Your task to perform on an android device: What's the price of the Galaxy phone on eBay? Image 0: 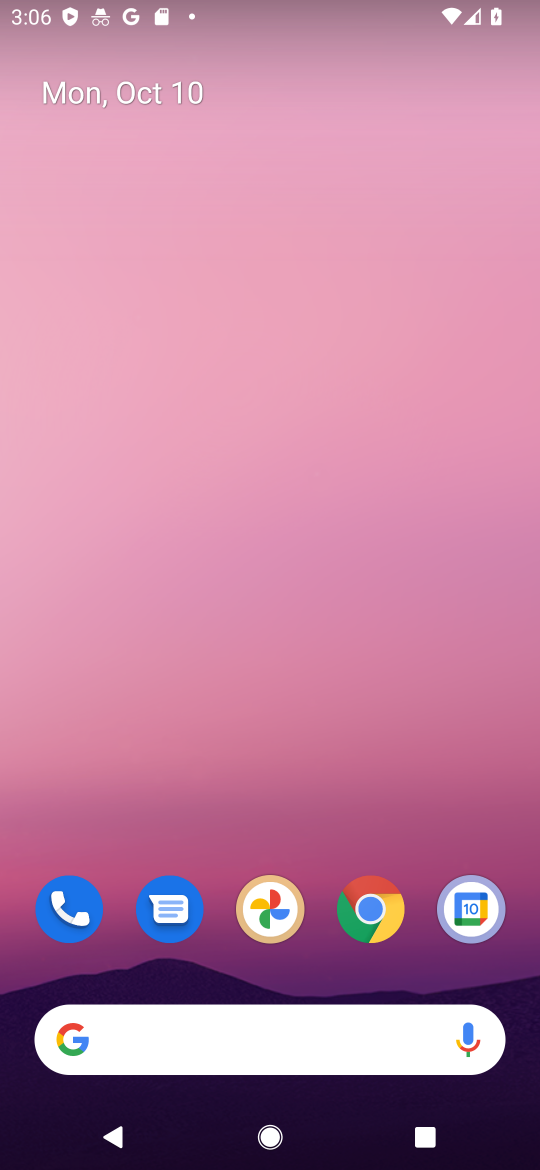
Step 0: click (373, 913)
Your task to perform on an android device: What's the price of the Galaxy phone on eBay? Image 1: 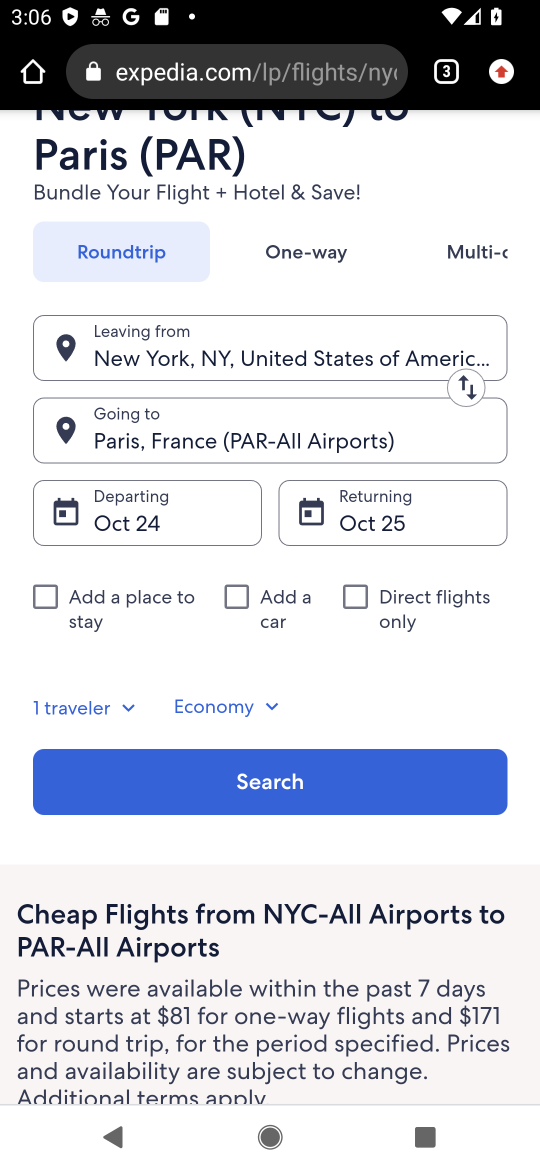
Step 1: click (243, 52)
Your task to perform on an android device: What's the price of the Galaxy phone on eBay? Image 2: 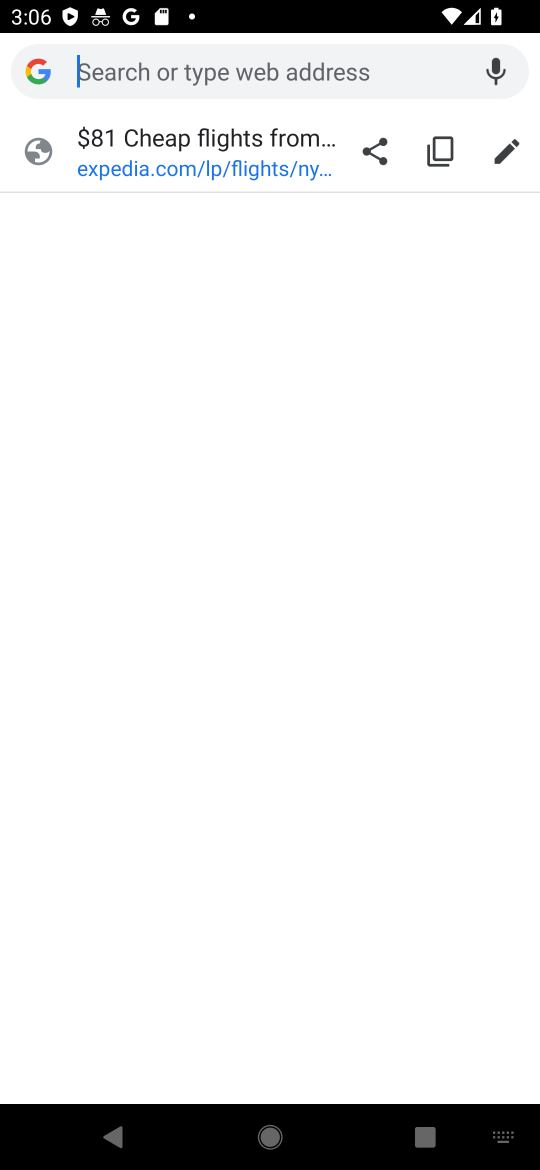
Step 2: type "eBay"
Your task to perform on an android device: What's the price of the Galaxy phone on eBay? Image 3: 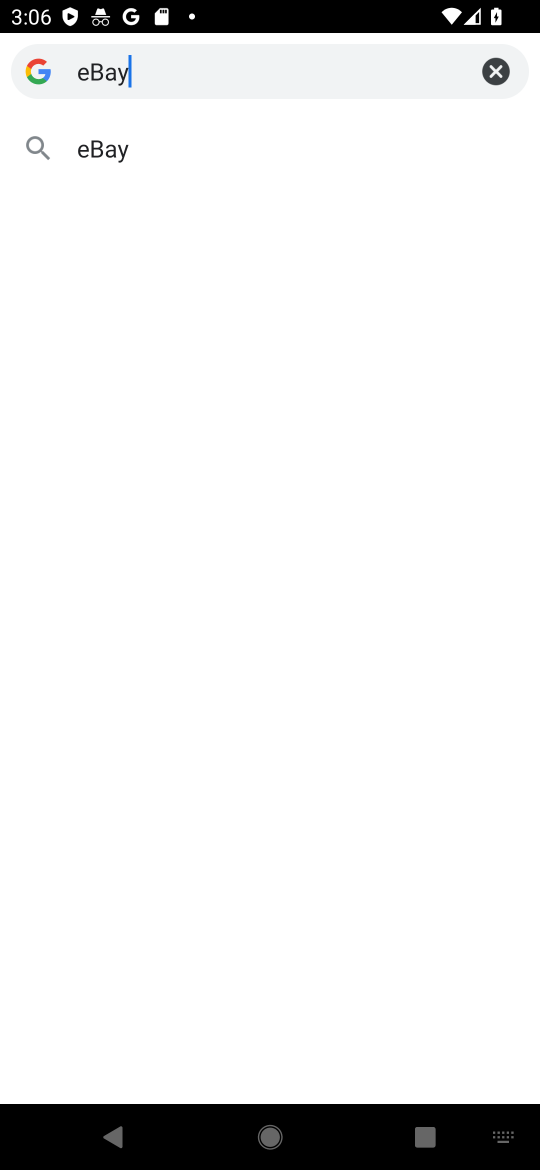
Step 3: click (106, 153)
Your task to perform on an android device: What's the price of the Galaxy phone on eBay? Image 4: 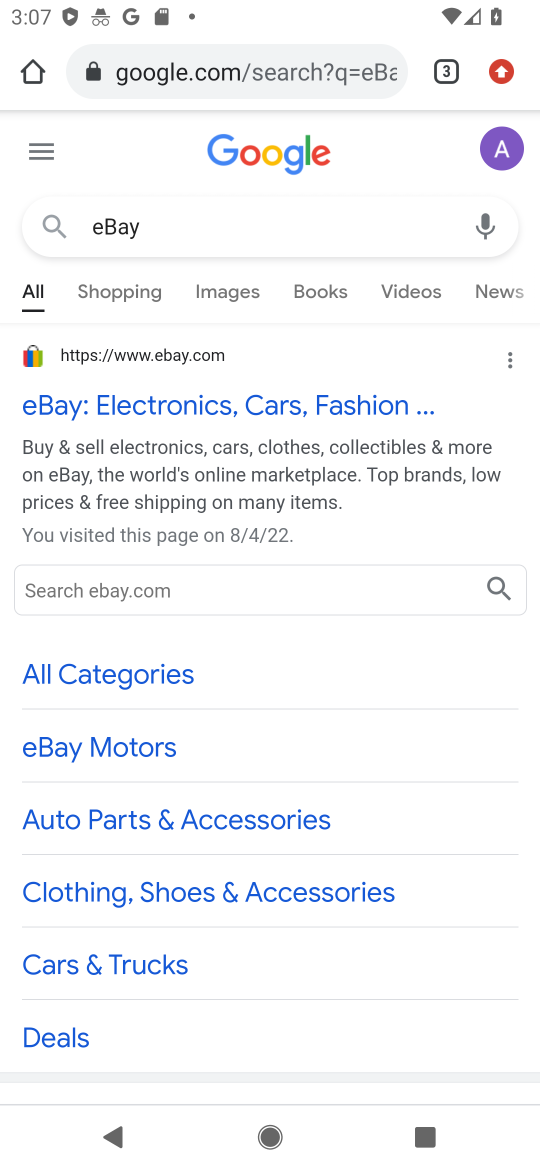
Step 4: click (52, 410)
Your task to perform on an android device: What's the price of the Galaxy phone on eBay? Image 5: 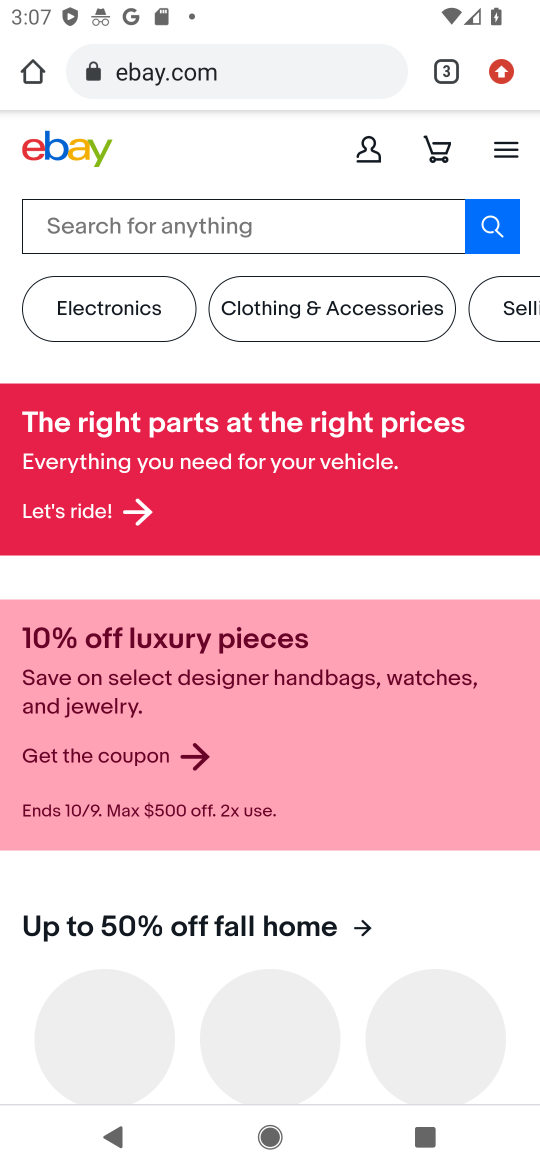
Step 5: click (96, 224)
Your task to perform on an android device: What's the price of the Galaxy phone on eBay? Image 6: 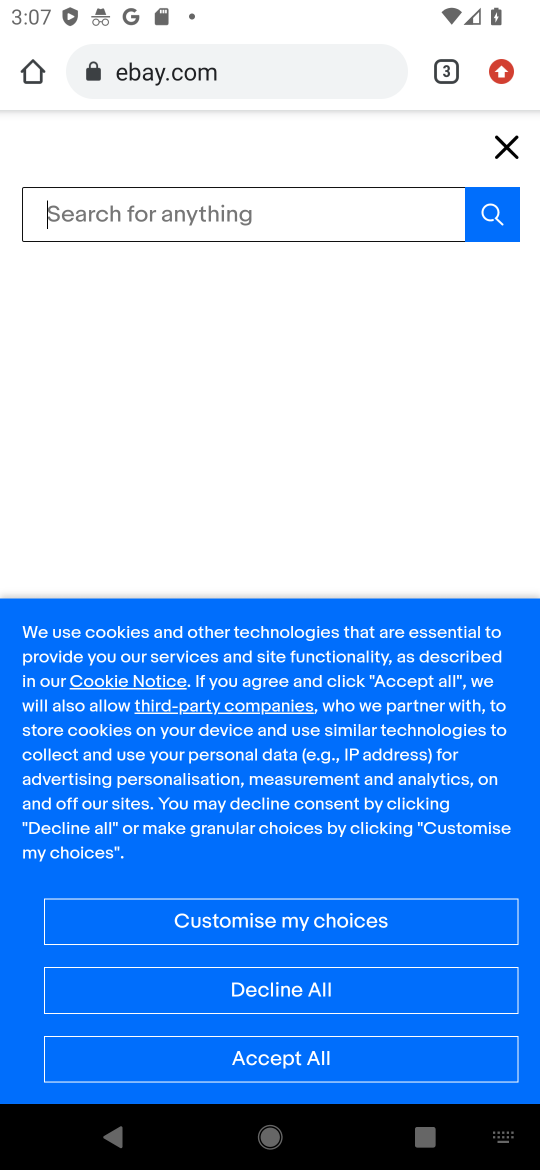
Step 6: type "price of the Galaxy phone"
Your task to perform on an android device: What's the price of the Galaxy phone on eBay? Image 7: 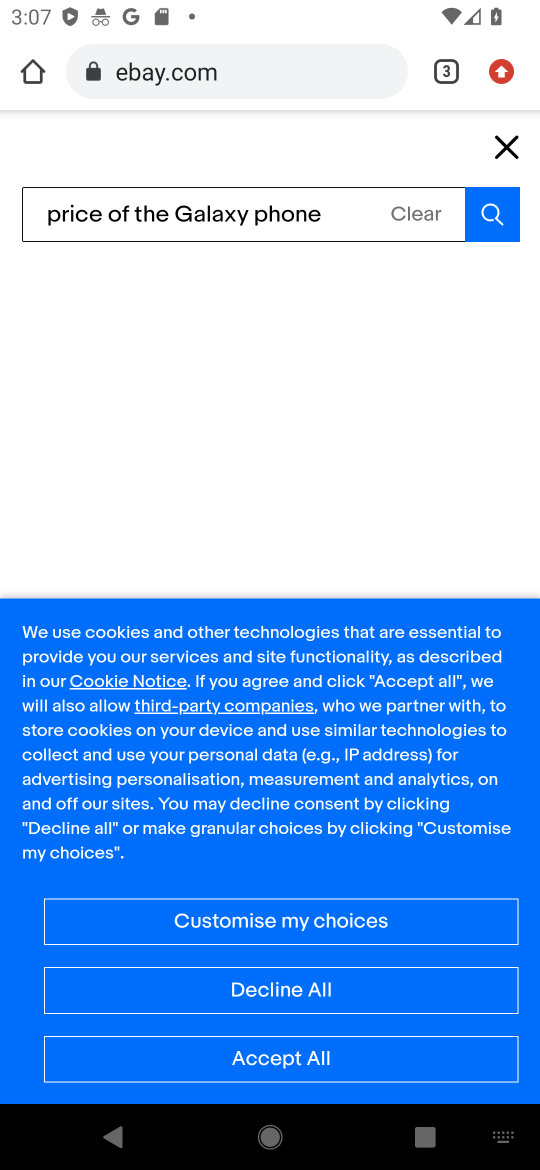
Step 7: click (264, 1060)
Your task to perform on an android device: What's the price of the Galaxy phone on eBay? Image 8: 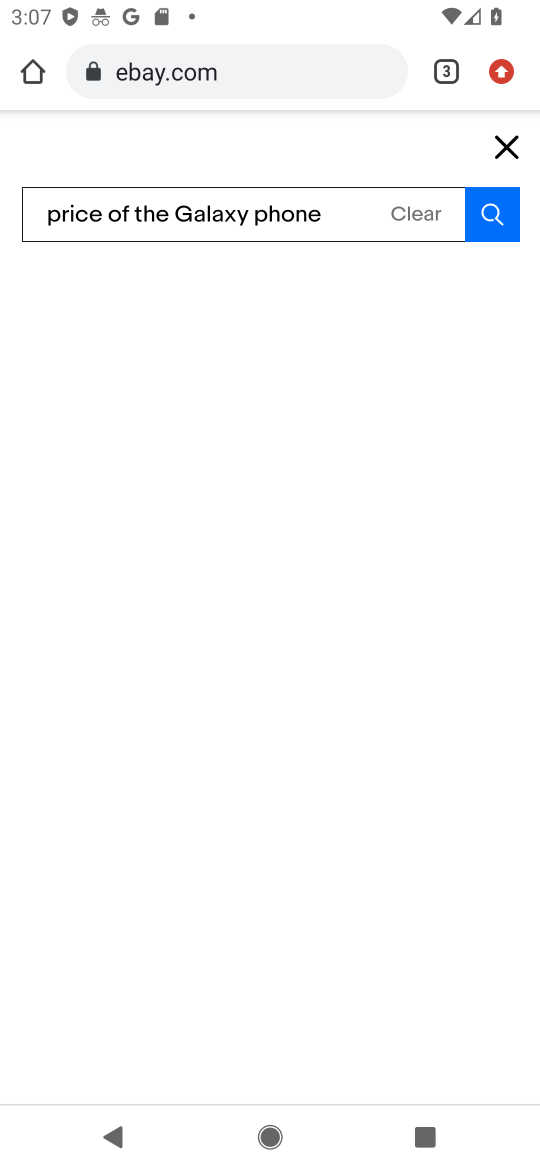
Step 8: click (488, 215)
Your task to perform on an android device: What's the price of the Galaxy phone on eBay? Image 9: 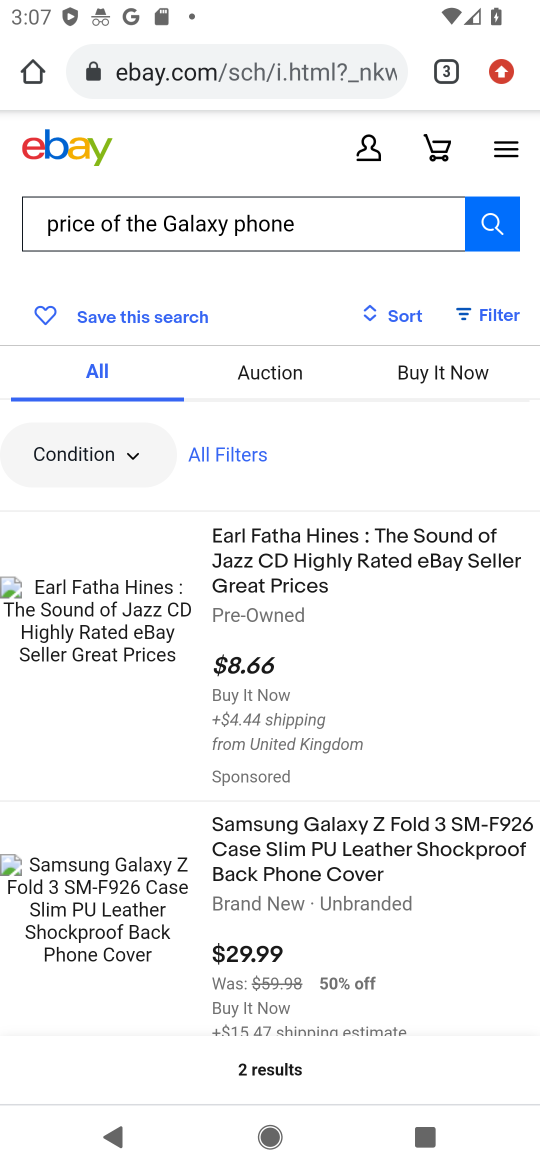
Step 9: task complete